Your task to perform on an android device: Open Youtube and go to "Your channel" Image 0: 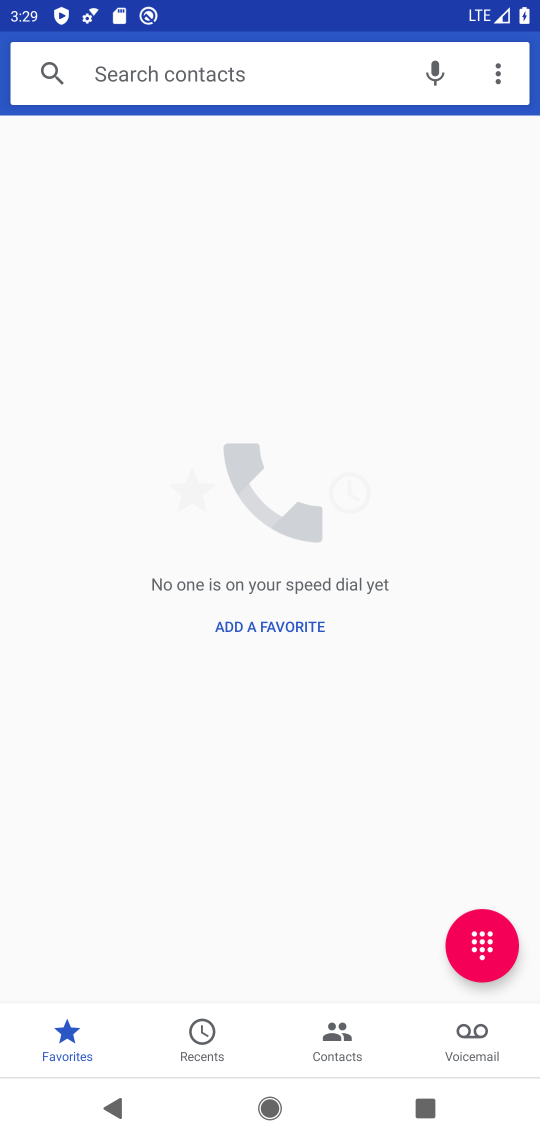
Step 0: press home button
Your task to perform on an android device: Open Youtube and go to "Your channel" Image 1: 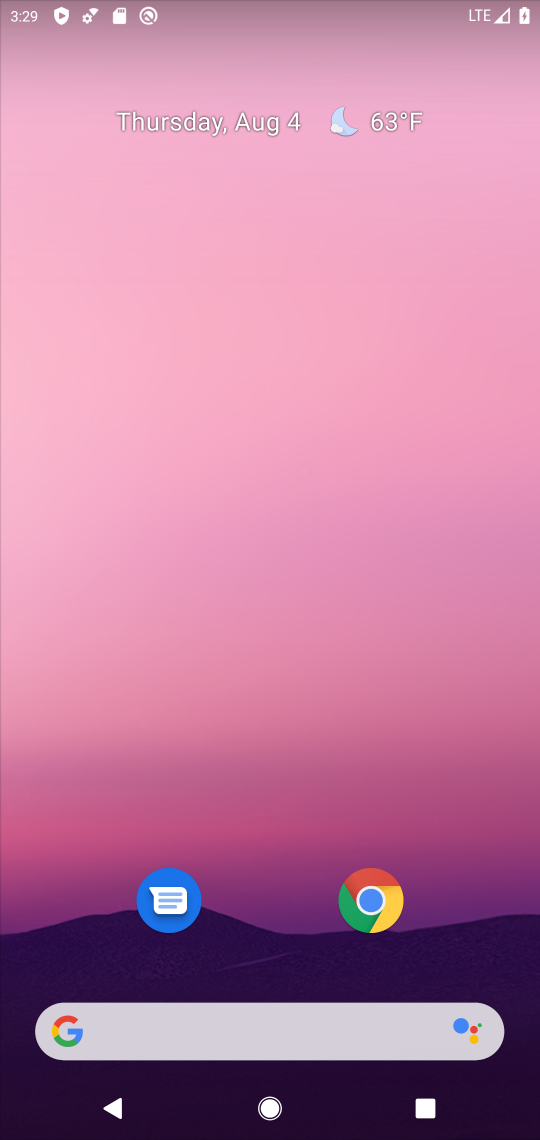
Step 1: drag from (496, 947) to (365, 2)
Your task to perform on an android device: Open Youtube and go to "Your channel" Image 2: 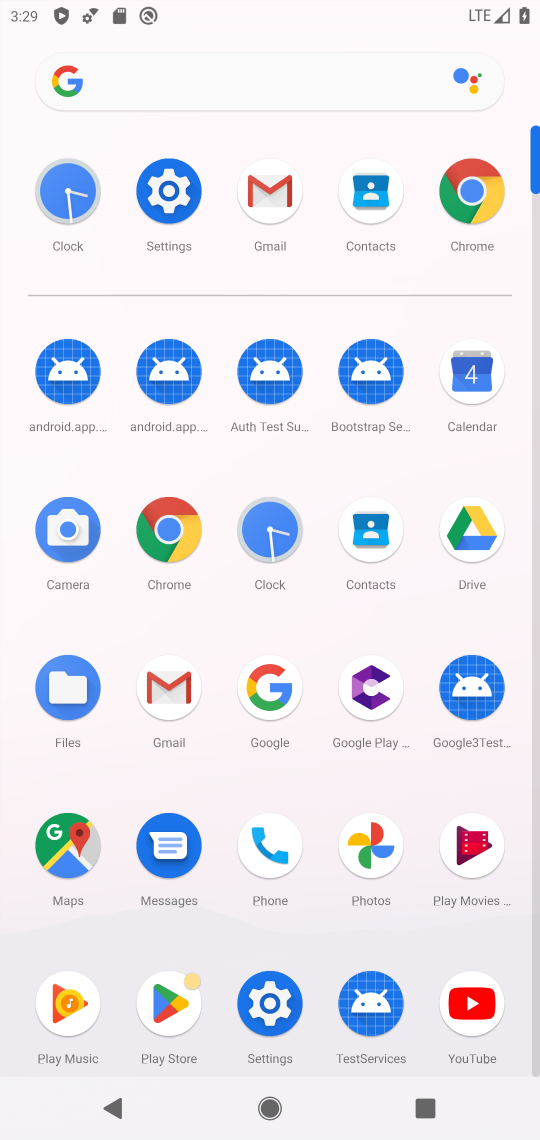
Step 2: click (460, 1029)
Your task to perform on an android device: Open Youtube and go to "Your channel" Image 3: 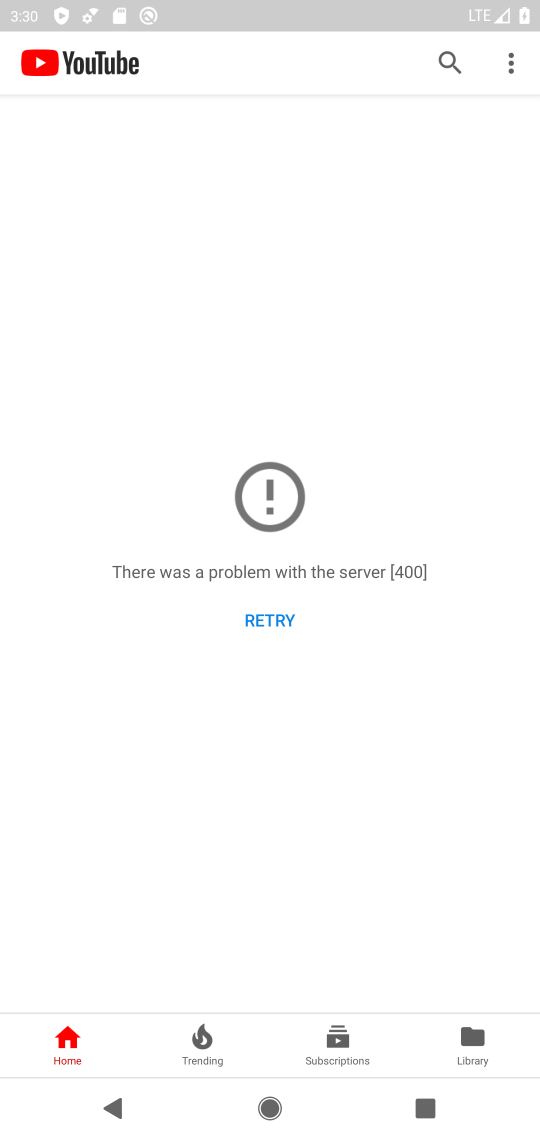
Step 3: click (476, 1050)
Your task to perform on an android device: Open Youtube and go to "Your channel" Image 4: 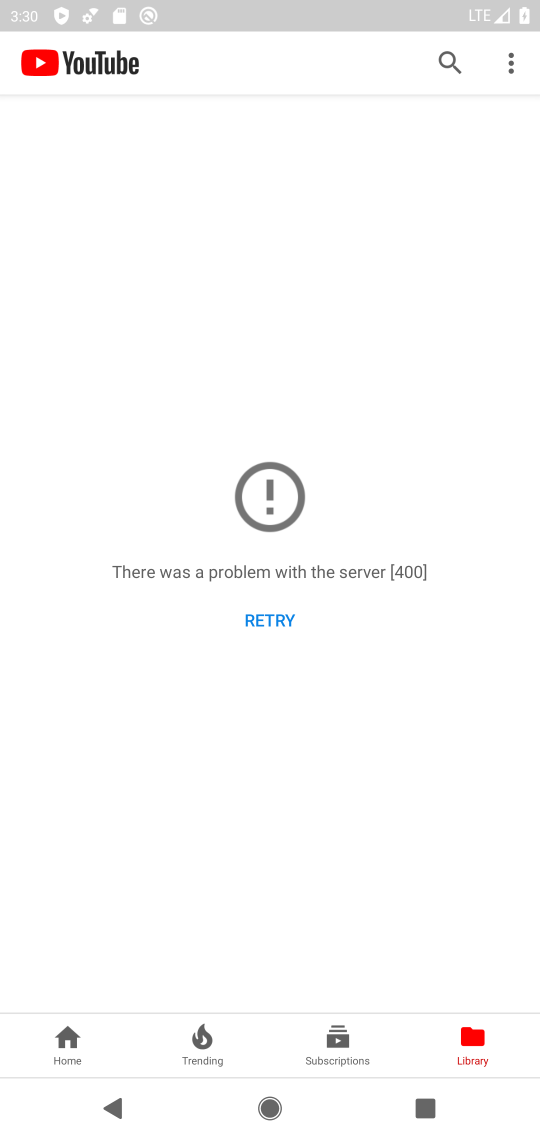
Step 4: click (514, 95)
Your task to perform on an android device: Open Youtube and go to "Your channel" Image 5: 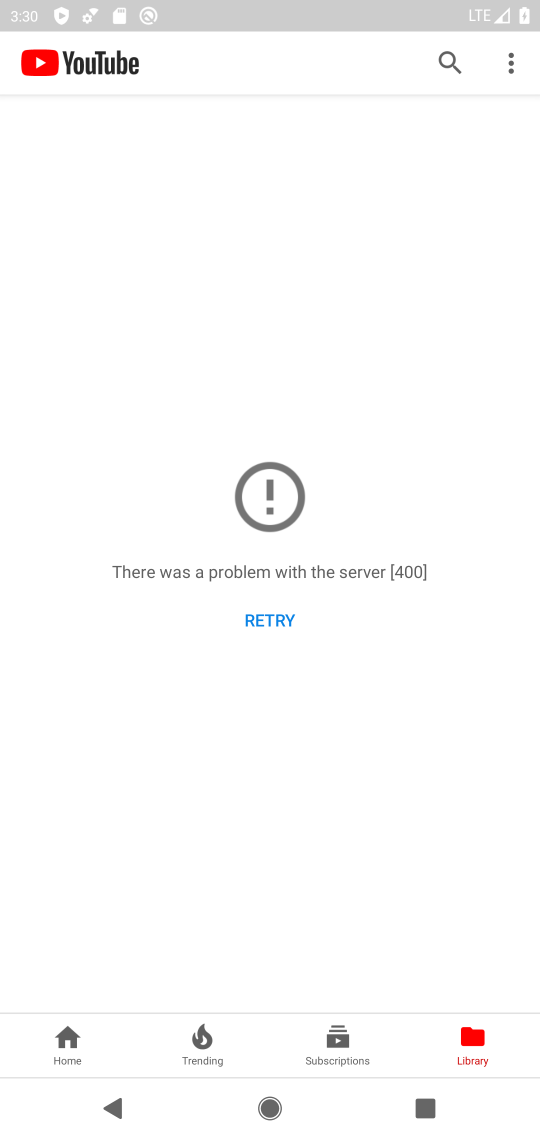
Step 5: click (513, 81)
Your task to perform on an android device: Open Youtube and go to "Your channel" Image 6: 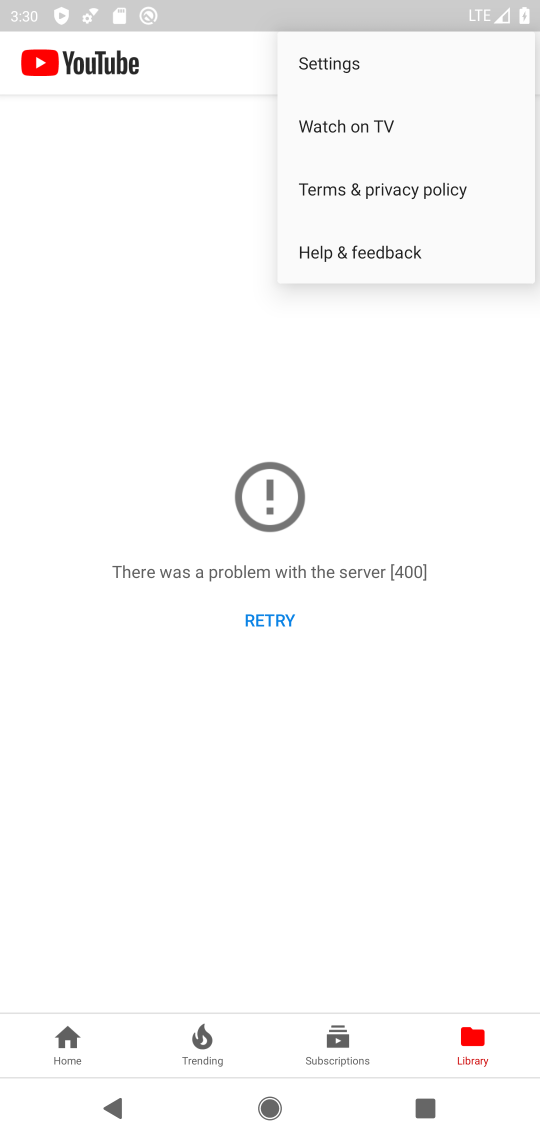
Step 6: task complete